Your task to perform on an android device: Search for Mexican restaurants on Maps Image 0: 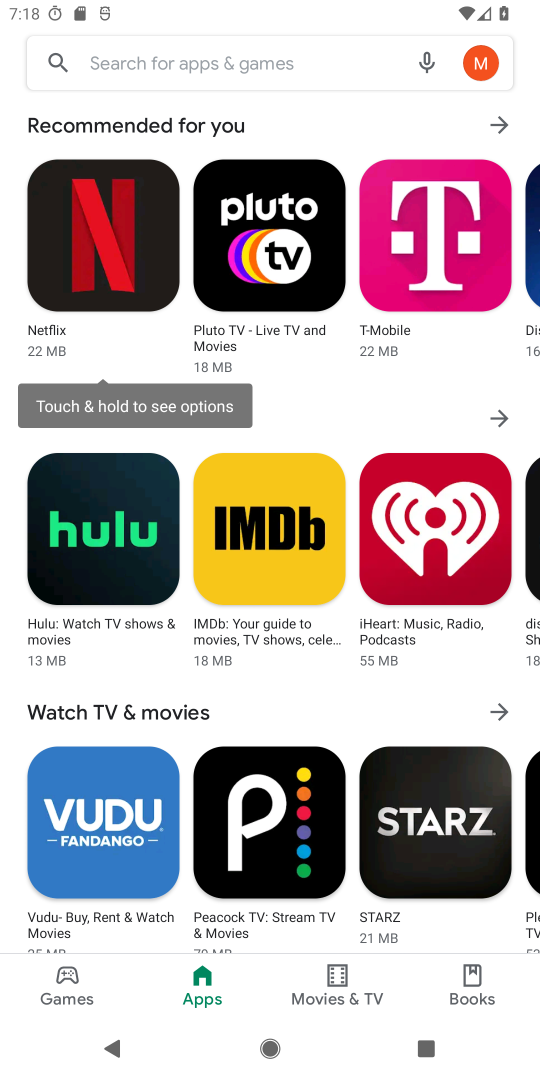
Step 0: press home button
Your task to perform on an android device: Search for Mexican restaurants on Maps Image 1: 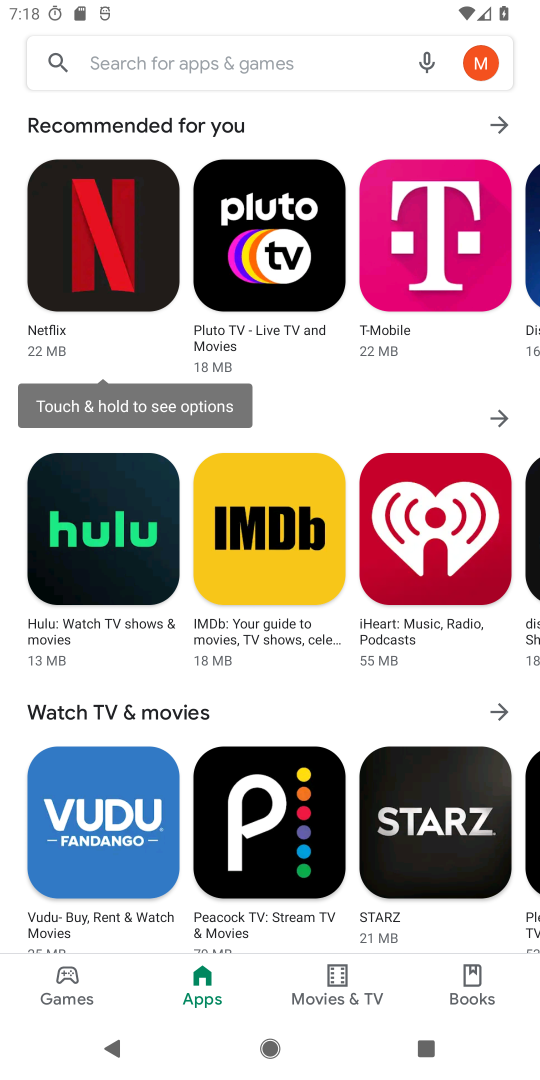
Step 1: press back button
Your task to perform on an android device: Search for Mexican restaurants on Maps Image 2: 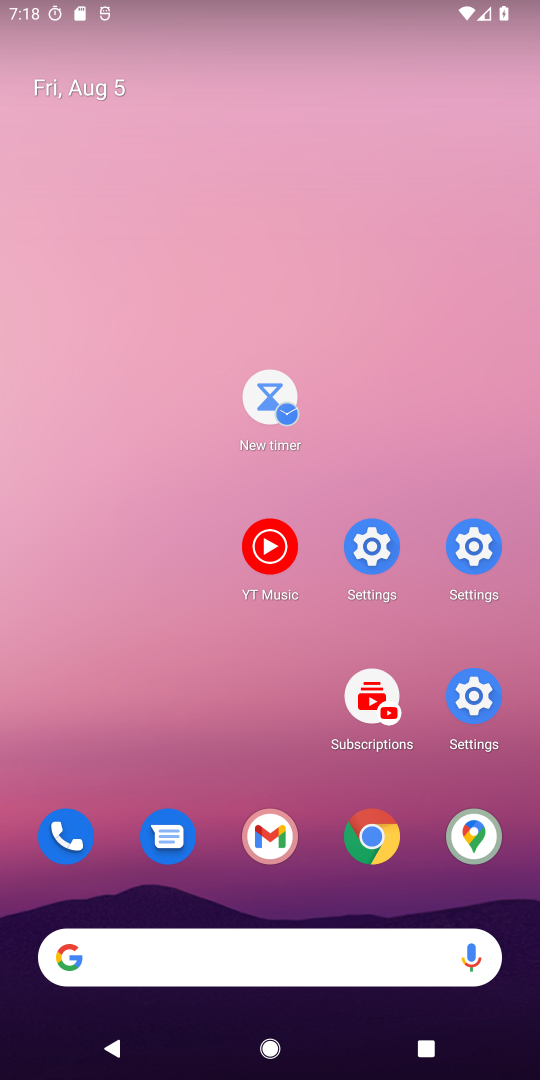
Step 2: drag from (282, 898) to (212, 193)
Your task to perform on an android device: Search for Mexican restaurants on Maps Image 3: 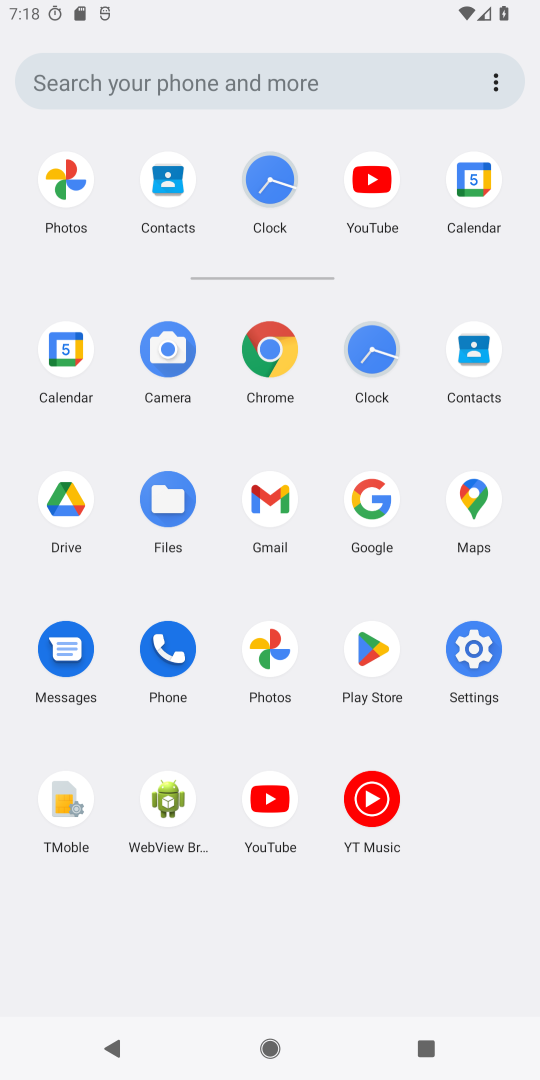
Step 3: drag from (352, 855) to (194, 10)
Your task to perform on an android device: Search for Mexican restaurants on Maps Image 4: 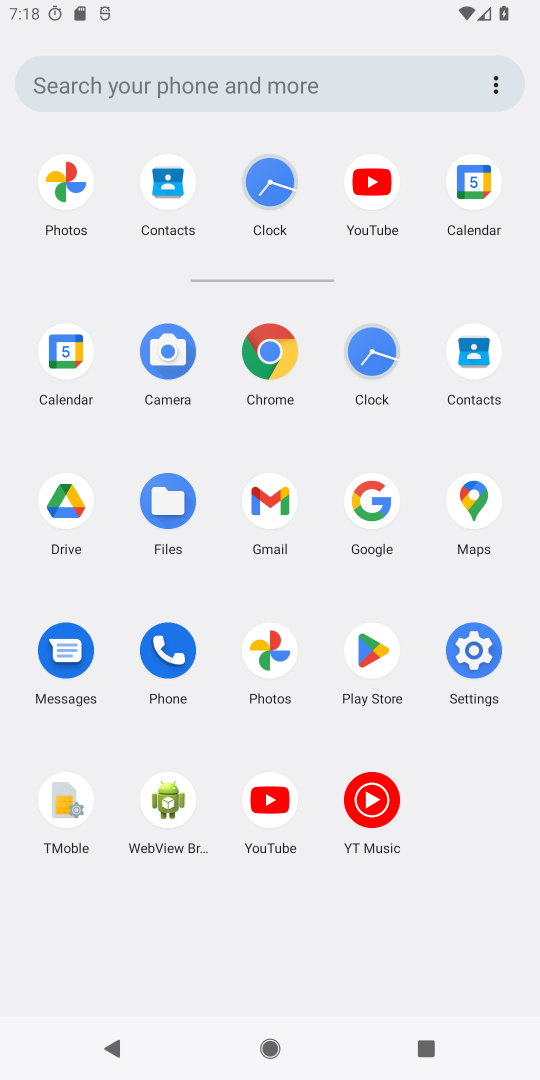
Step 4: click (479, 483)
Your task to perform on an android device: Search for Mexican restaurants on Maps Image 5: 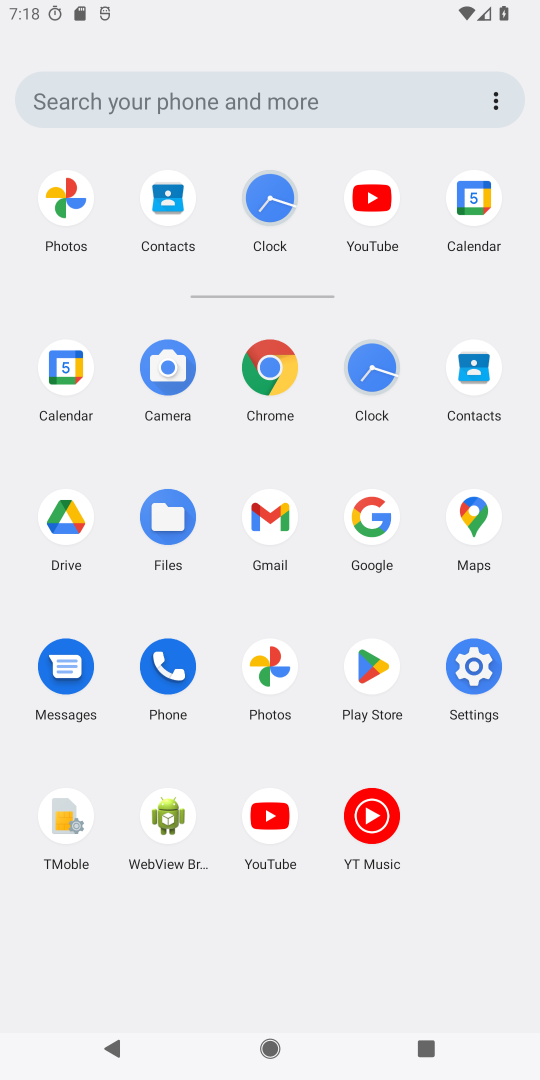
Step 5: click (479, 508)
Your task to perform on an android device: Search for Mexican restaurants on Maps Image 6: 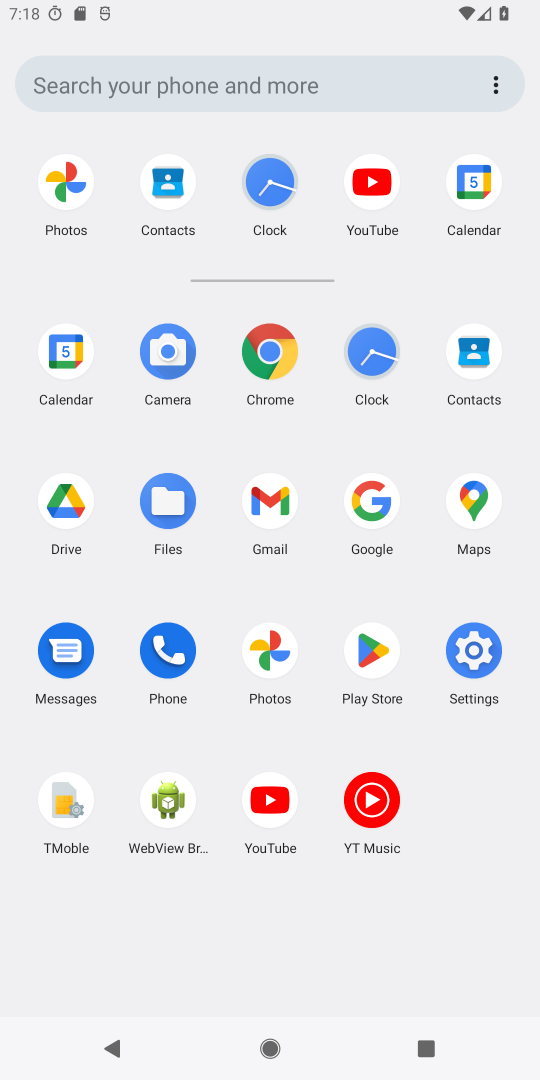
Step 6: click (479, 508)
Your task to perform on an android device: Search for Mexican restaurants on Maps Image 7: 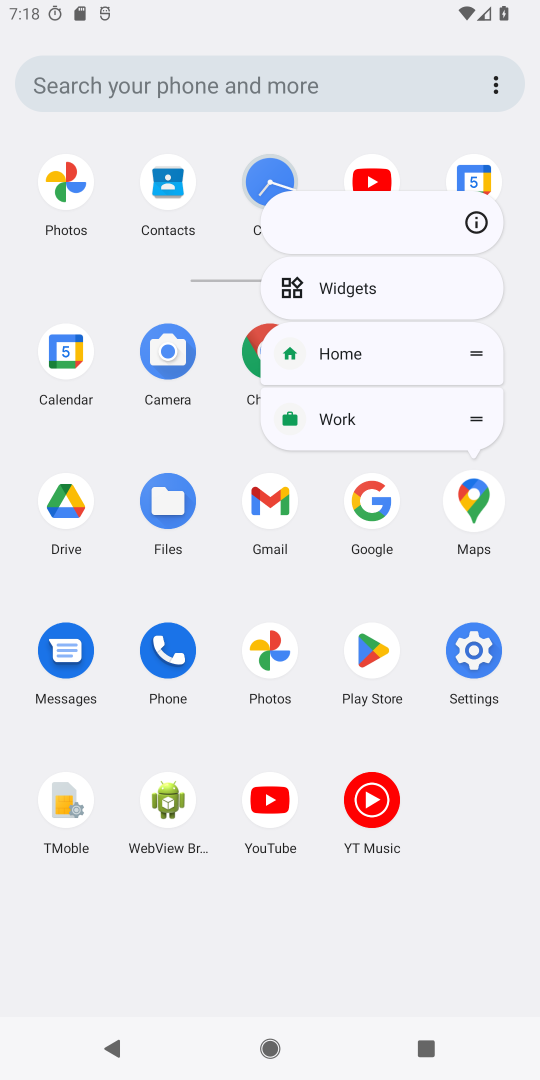
Step 7: click (474, 495)
Your task to perform on an android device: Search for Mexican restaurants on Maps Image 8: 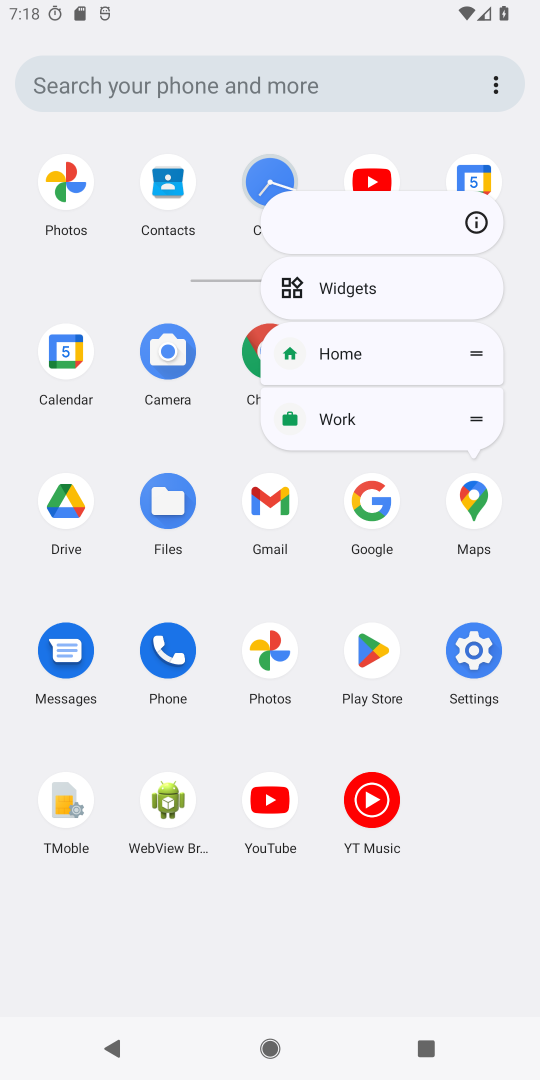
Step 8: click (473, 510)
Your task to perform on an android device: Search for Mexican restaurants on Maps Image 9: 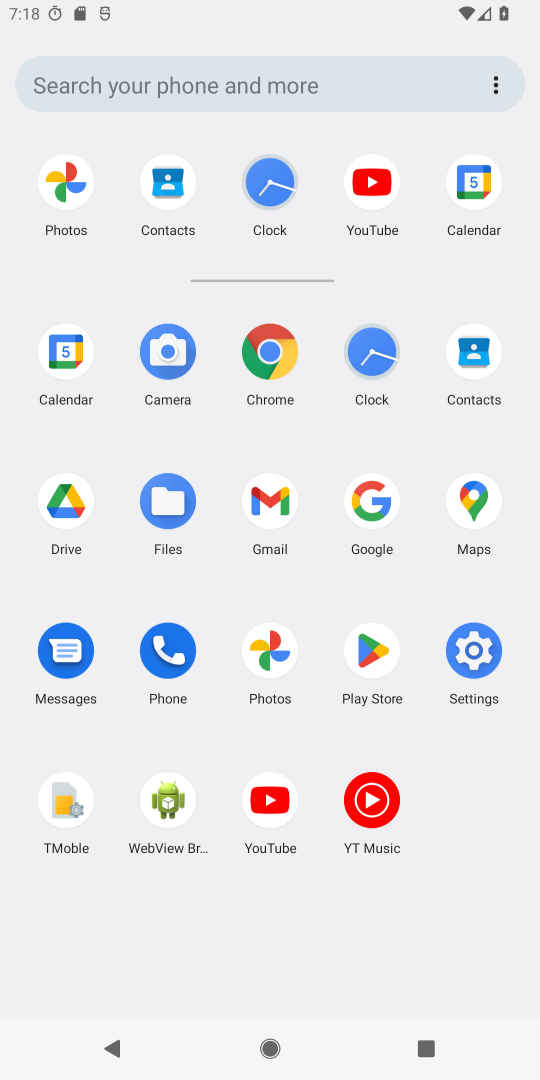
Step 9: click (473, 510)
Your task to perform on an android device: Search for Mexican restaurants on Maps Image 10: 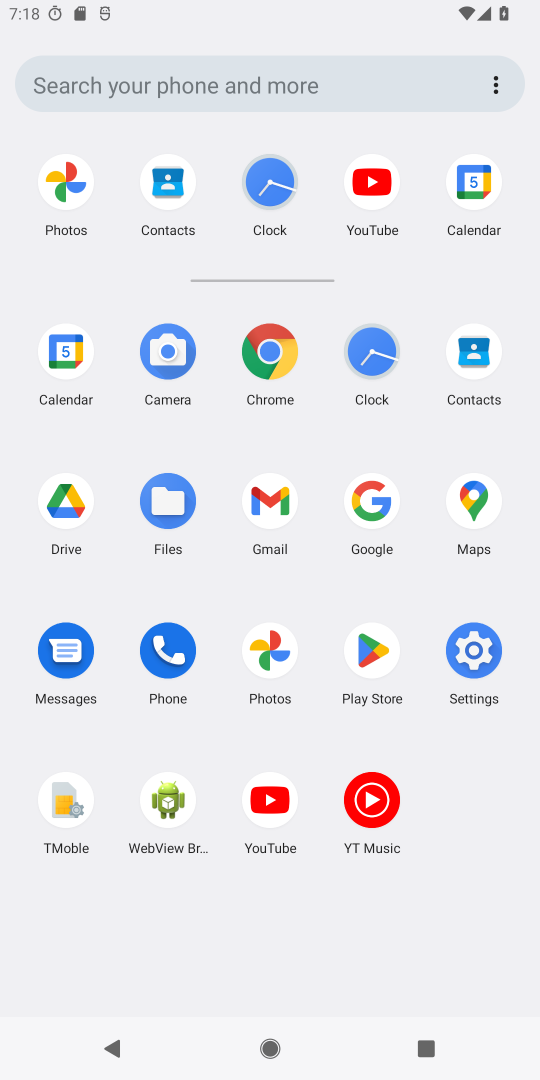
Step 10: click (445, 493)
Your task to perform on an android device: Search for Mexican restaurants on Maps Image 11: 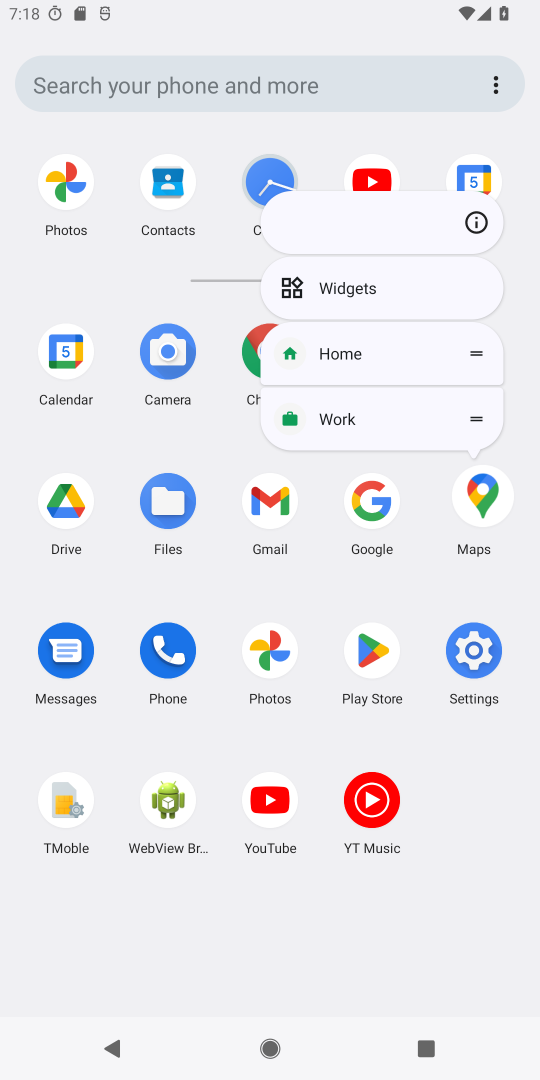
Step 11: click (461, 499)
Your task to perform on an android device: Search for Mexican restaurants on Maps Image 12: 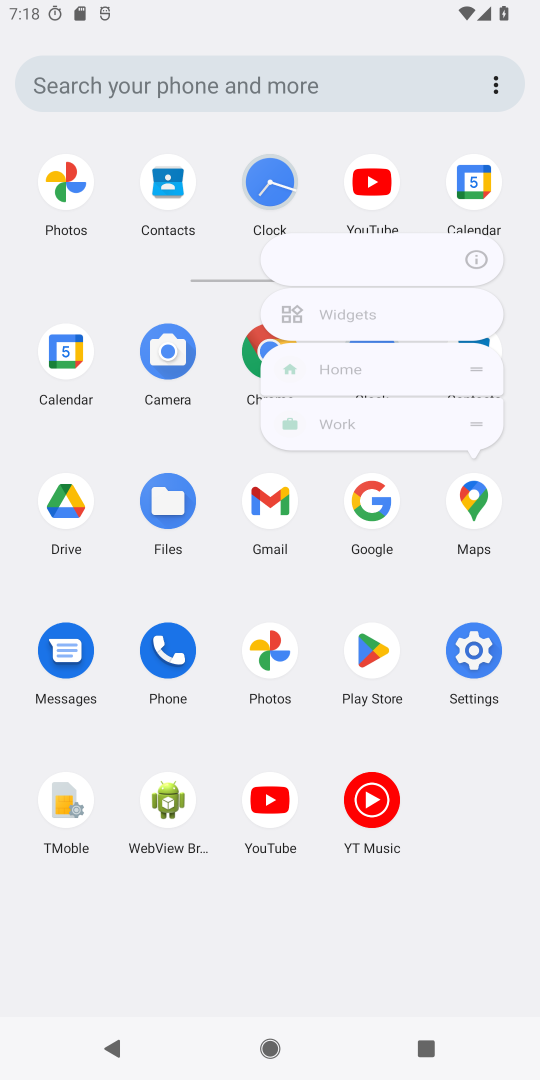
Step 12: click (466, 499)
Your task to perform on an android device: Search for Mexican restaurants on Maps Image 13: 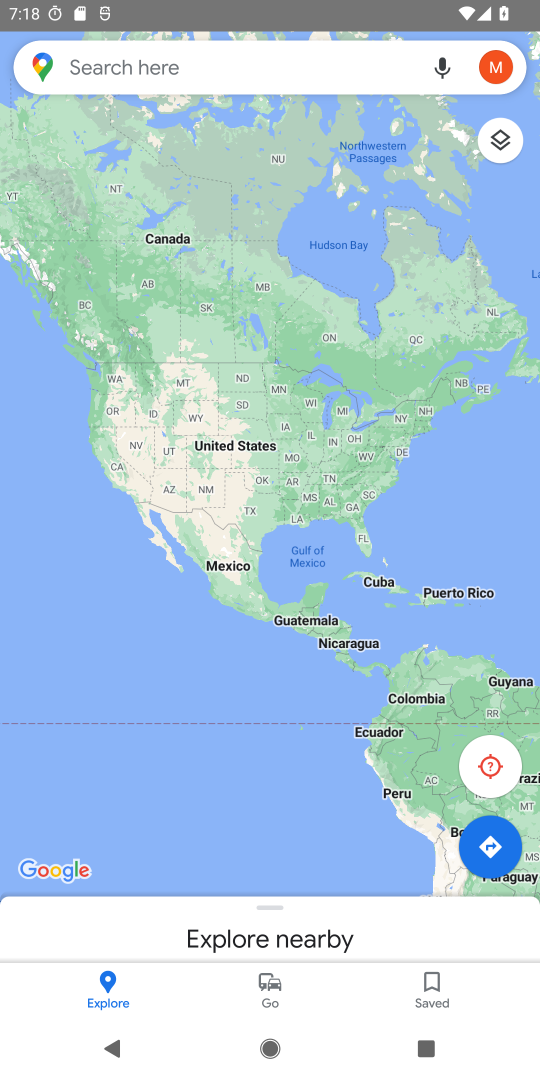
Step 13: click (90, 68)
Your task to perform on an android device: Search for Mexican restaurants on Maps Image 14: 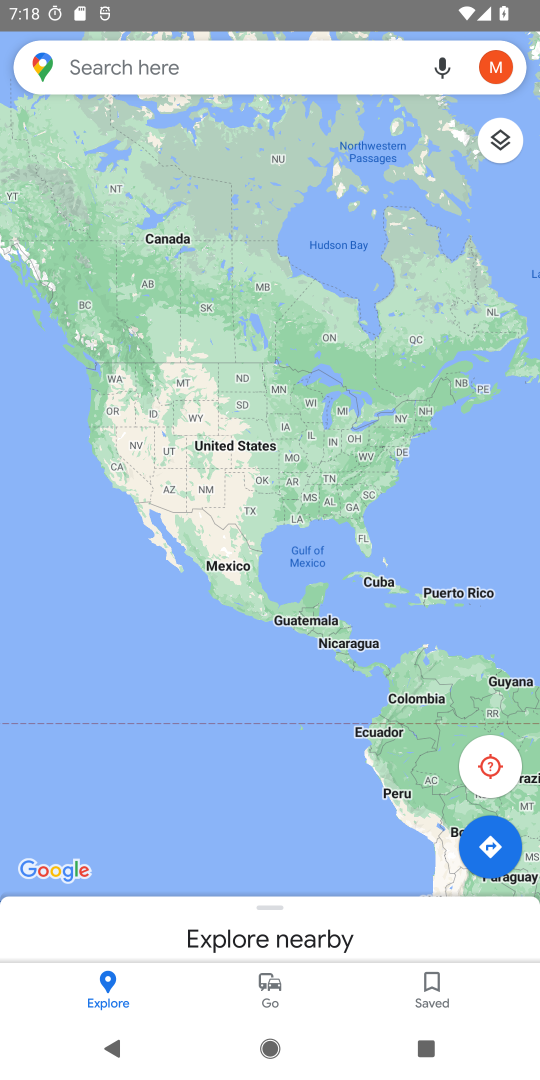
Step 14: click (128, 52)
Your task to perform on an android device: Search for Mexican restaurants on Maps Image 15: 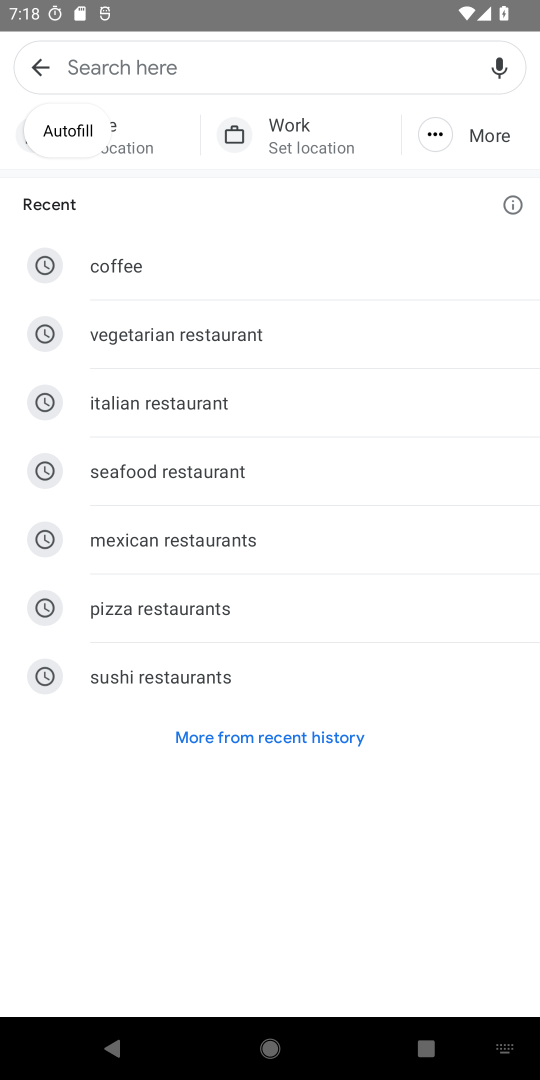
Step 15: click (190, 542)
Your task to perform on an android device: Search for Mexican restaurants on Maps Image 16: 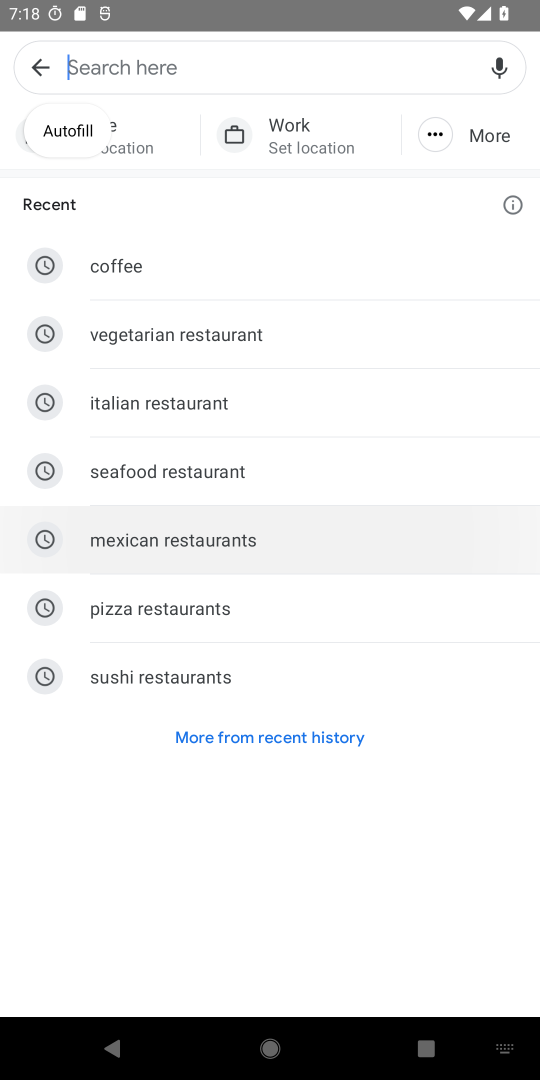
Step 16: click (190, 542)
Your task to perform on an android device: Search for Mexican restaurants on Maps Image 17: 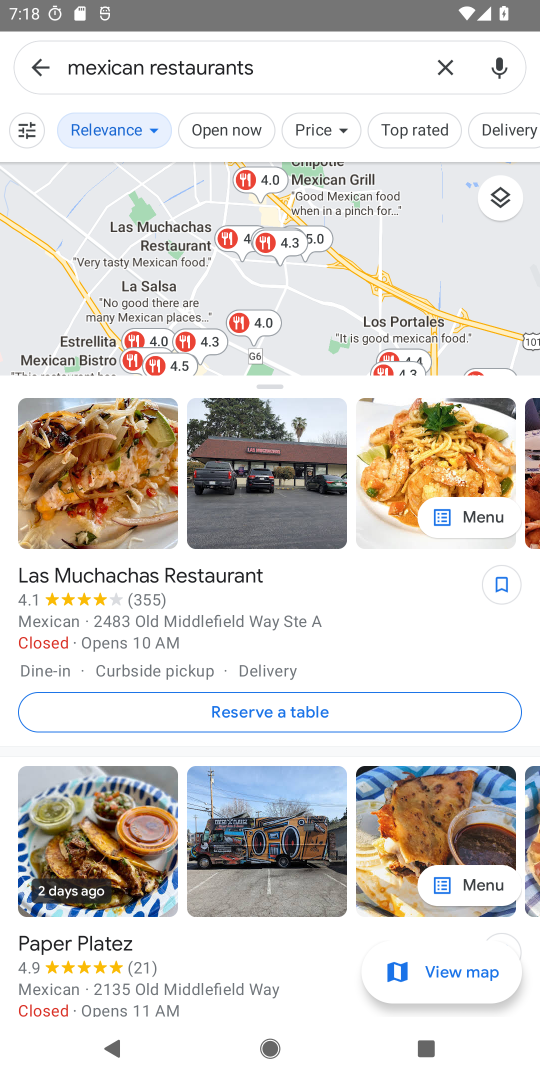
Step 17: task complete